Your task to perform on an android device: Open my contact list Image 0: 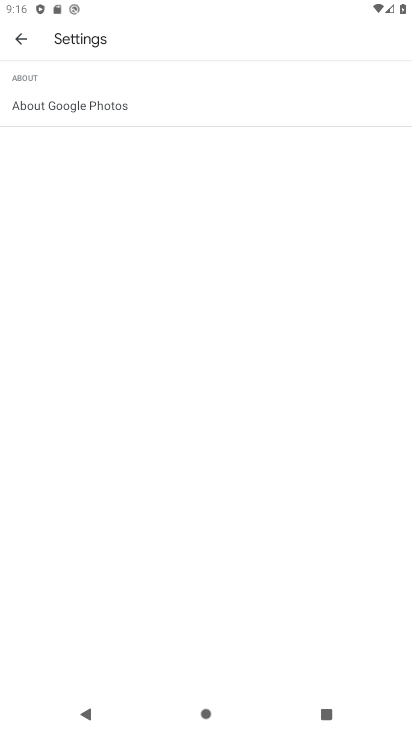
Step 0: press home button
Your task to perform on an android device: Open my contact list Image 1: 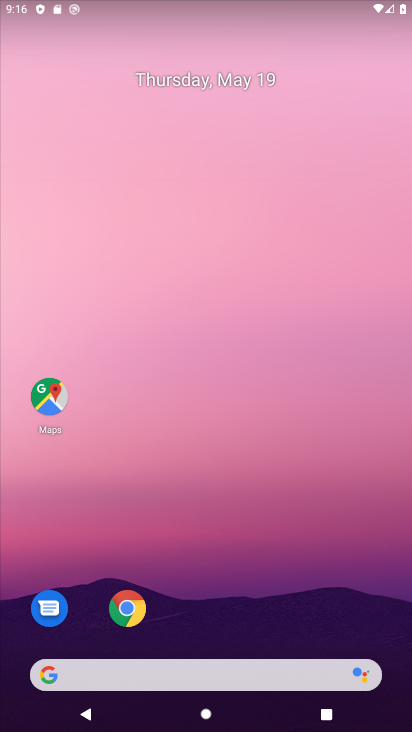
Step 1: drag from (170, 630) to (170, 238)
Your task to perform on an android device: Open my contact list Image 2: 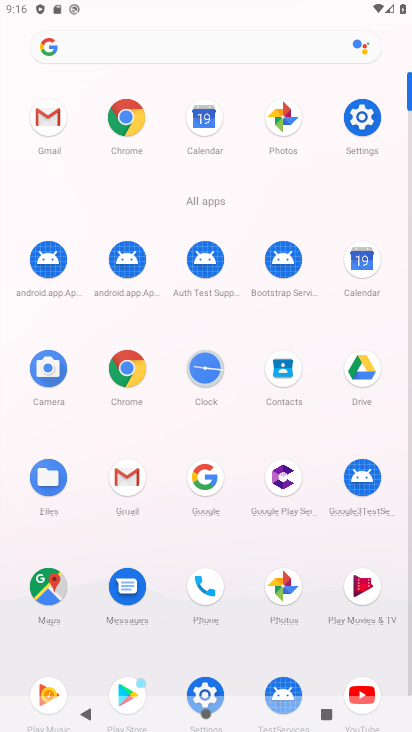
Step 2: click (281, 377)
Your task to perform on an android device: Open my contact list Image 3: 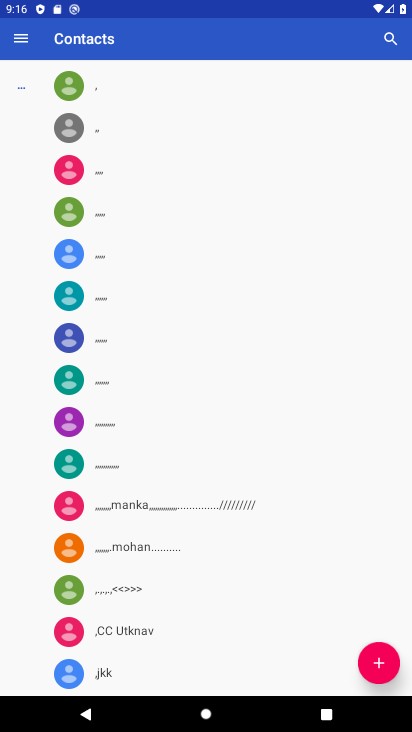
Step 3: task complete